Your task to perform on an android device: uninstall "Google Play Games" Image 0: 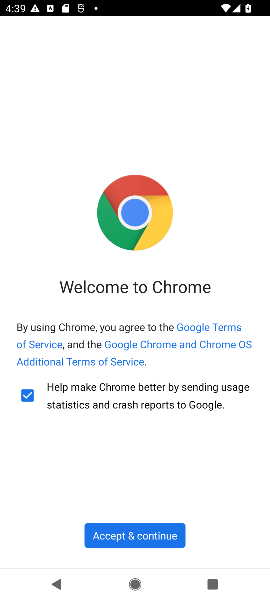
Step 0: press home button
Your task to perform on an android device: uninstall "Google Play Games" Image 1: 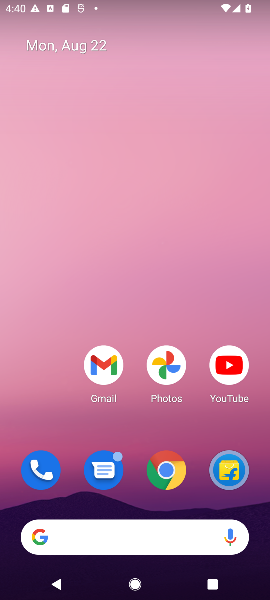
Step 1: drag from (137, 473) to (124, 122)
Your task to perform on an android device: uninstall "Google Play Games" Image 2: 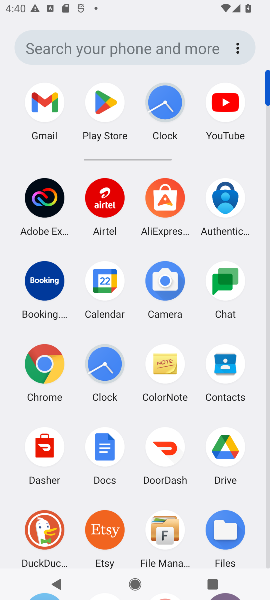
Step 2: click (96, 100)
Your task to perform on an android device: uninstall "Google Play Games" Image 3: 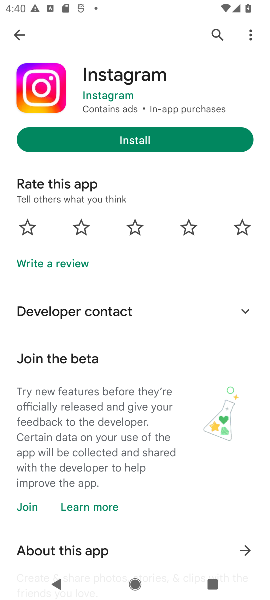
Step 3: click (21, 29)
Your task to perform on an android device: uninstall "Google Play Games" Image 4: 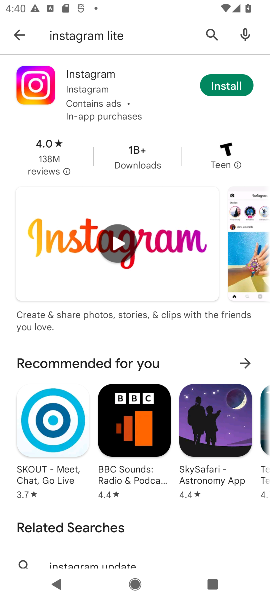
Step 4: click (21, 29)
Your task to perform on an android device: uninstall "Google Play Games" Image 5: 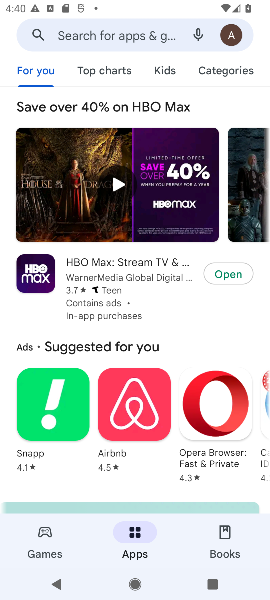
Step 5: click (79, 31)
Your task to perform on an android device: uninstall "Google Play Games" Image 6: 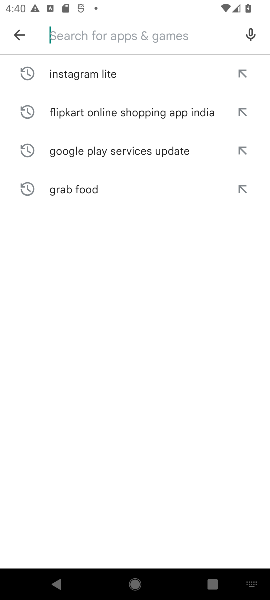
Step 6: type "Google Play Games "
Your task to perform on an android device: uninstall "Google Play Games" Image 7: 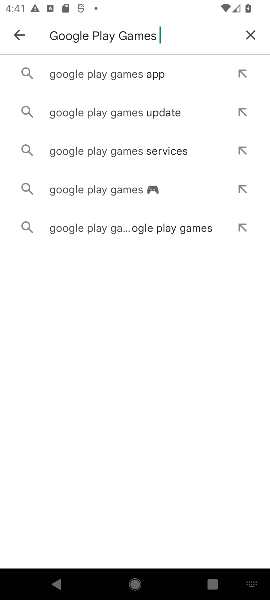
Step 7: click (109, 77)
Your task to perform on an android device: uninstall "Google Play Games" Image 8: 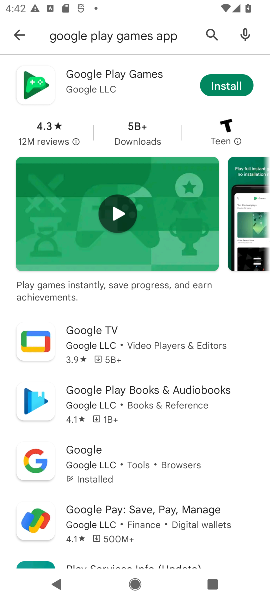
Step 8: click (98, 73)
Your task to perform on an android device: uninstall "Google Play Games" Image 9: 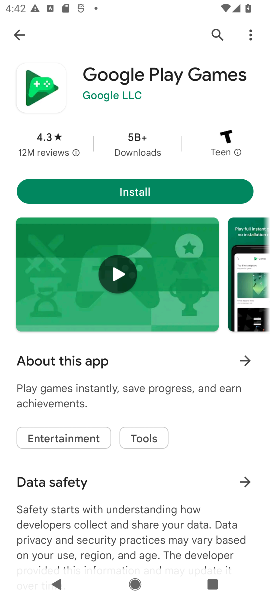
Step 9: task complete